Your task to perform on an android device: What's the weather going to be tomorrow? Image 0: 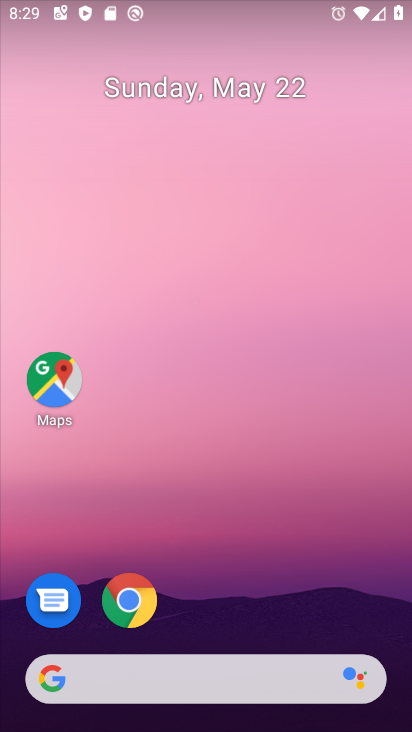
Step 0: drag from (246, 647) to (235, 338)
Your task to perform on an android device: What's the weather going to be tomorrow? Image 1: 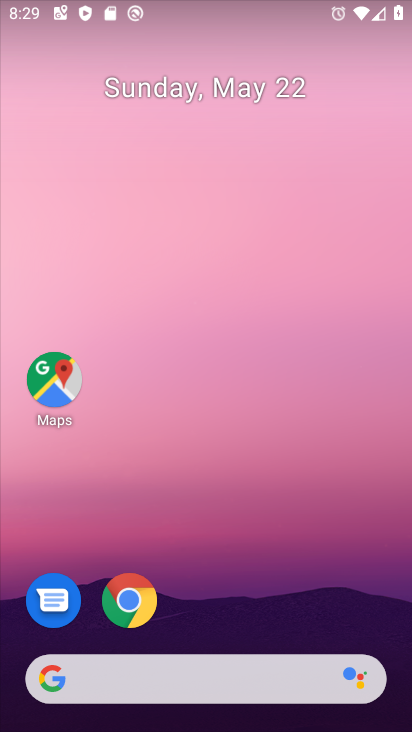
Step 1: drag from (232, 598) to (288, 134)
Your task to perform on an android device: What's the weather going to be tomorrow? Image 2: 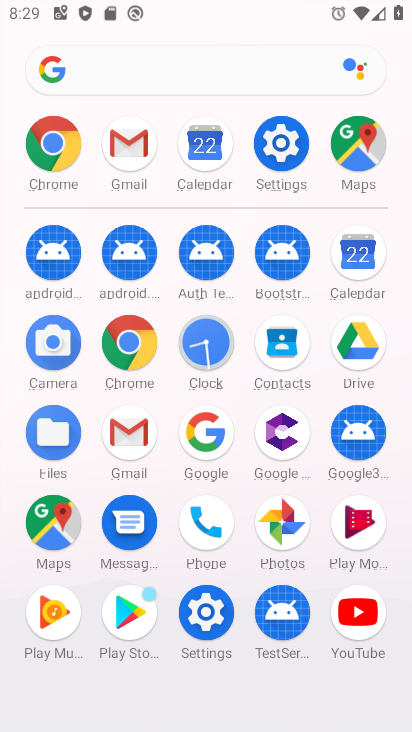
Step 2: click (196, 447)
Your task to perform on an android device: What's the weather going to be tomorrow? Image 3: 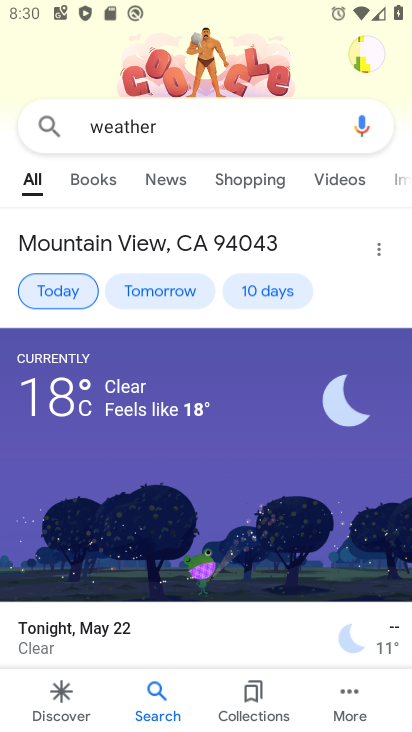
Step 3: click (180, 287)
Your task to perform on an android device: What's the weather going to be tomorrow? Image 4: 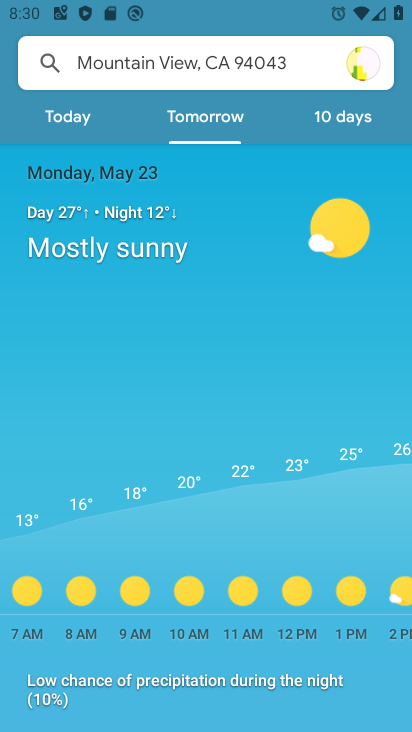
Step 4: task complete